Your task to perform on an android device: read, delete, or share a saved page in the chrome app Image 0: 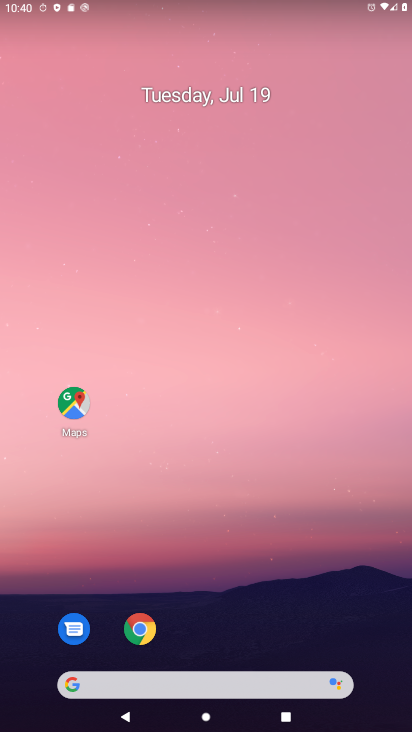
Step 0: drag from (244, 627) to (234, 192)
Your task to perform on an android device: read, delete, or share a saved page in the chrome app Image 1: 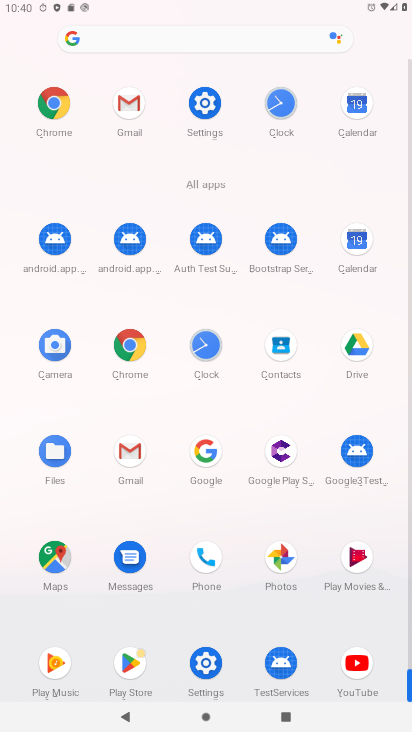
Step 1: click (43, 105)
Your task to perform on an android device: read, delete, or share a saved page in the chrome app Image 2: 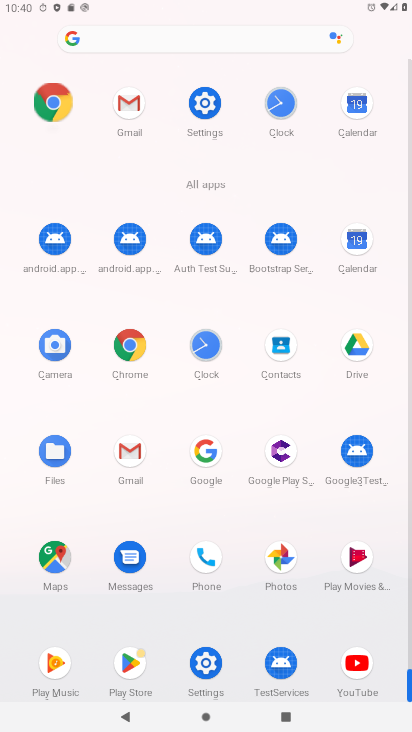
Step 2: click (54, 105)
Your task to perform on an android device: read, delete, or share a saved page in the chrome app Image 3: 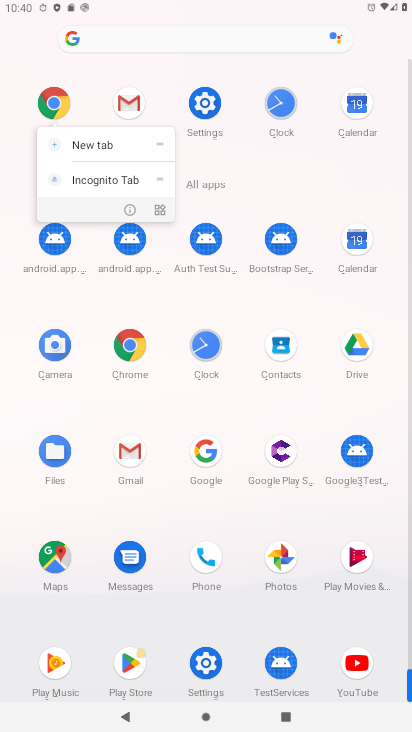
Step 3: click (58, 105)
Your task to perform on an android device: read, delete, or share a saved page in the chrome app Image 4: 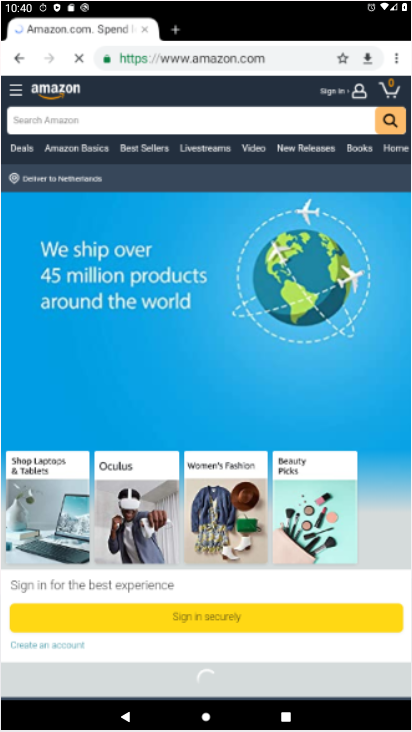
Step 4: click (58, 105)
Your task to perform on an android device: read, delete, or share a saved page in the chrome app Image 5: 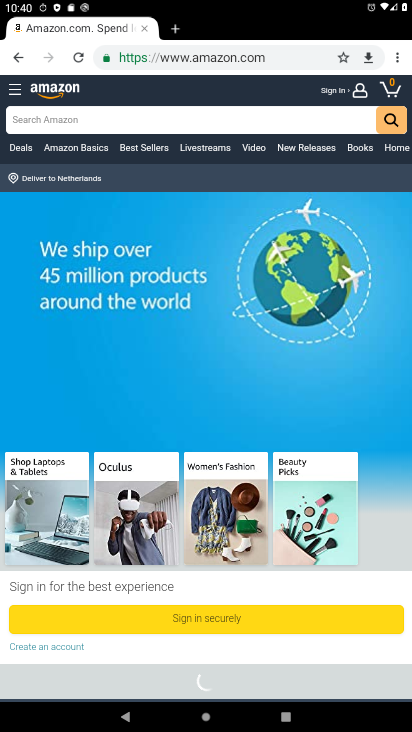
Step 5: drag from (399, 55) to (289, 204)
Your task to perform on an android device: read, delete, or share a saved page in the chrome app Image 6: 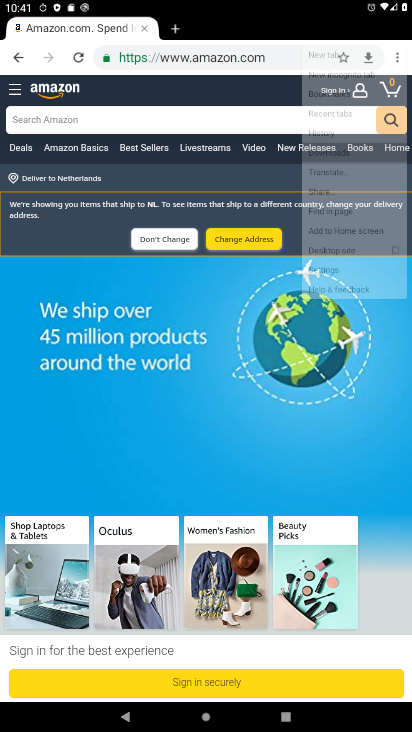
Step 6: click (300, 204)
Your task to perform on an android device: read, delete, or share a saved page in the chrome app Image 7: 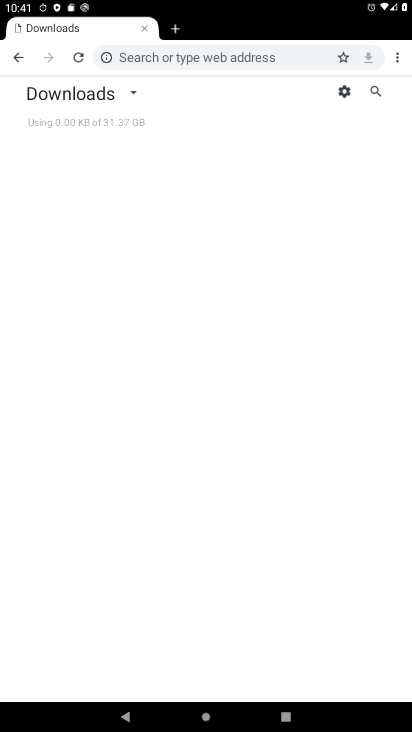
Step 7: click (128, 87)
Your task to perform on an android device: read, delete, or share a saved page in the chrome app Image 8: 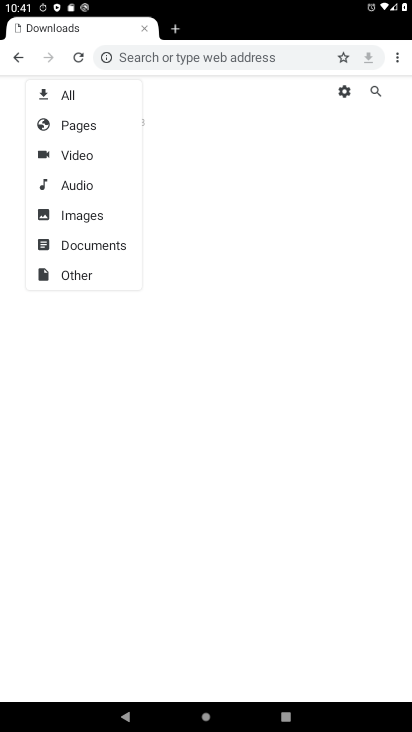
Step 8: click (84, 155)
Your task to perform on an android device: read, delete, or share a saved page in the chrome app Image 9: 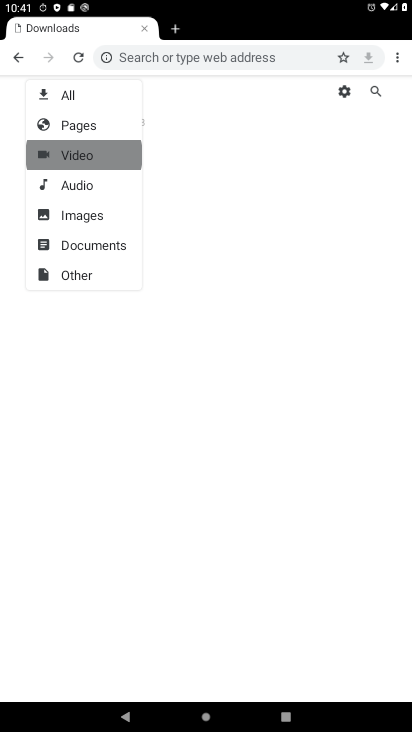
Step 9: click (88, 154)
Your task to perform on an android device: read, delete, or share a saved page in the chrome app Image 10: 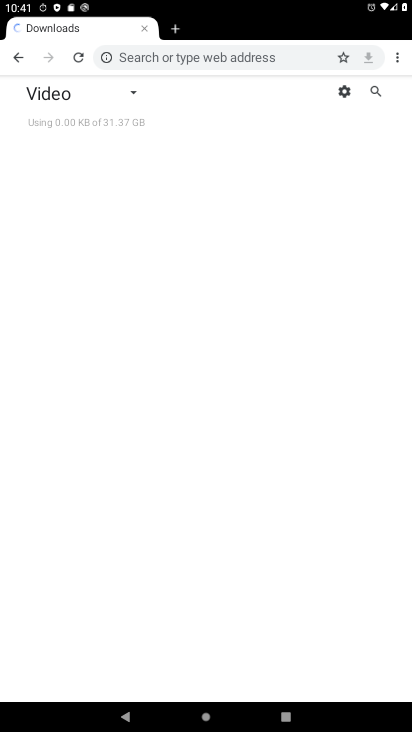
Step 10: click (100, 144)
Your task to perform on an android device: read, delete, or share a saved page in the chrome app Image 11: 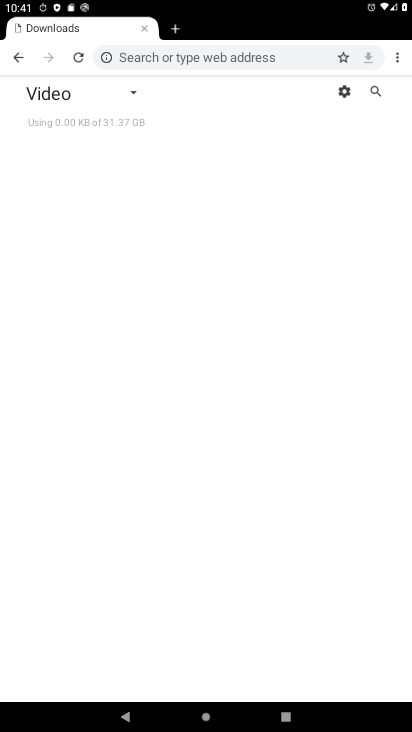
Step 11: task complete